Your task to perform on an android device: check out phone information Image 0: 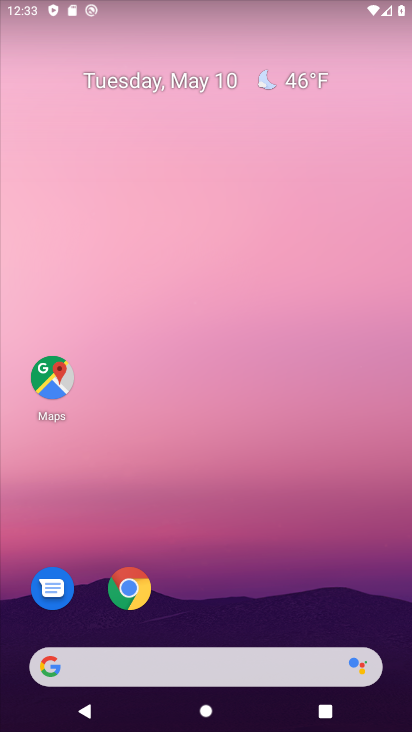
Step 0: drag from (203, 636) to (196, 53)
Your task to perform on an android device: check out phone information Image 1: 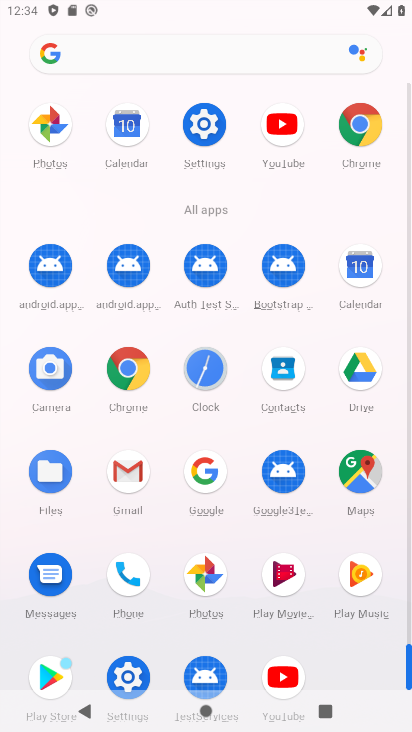
Step 1: click (134, 676)
Your task to perform on an android device: check out phone information Image 2: 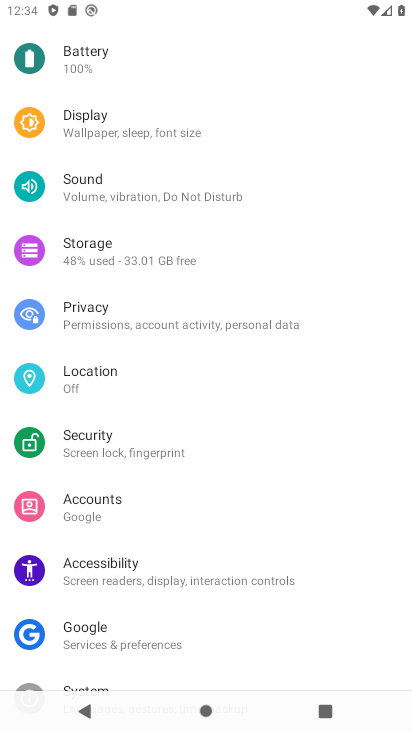
Step 2: drag from (80, 589) to (96, 2)
Your task to perform on an android device: check out phone information Image 3: 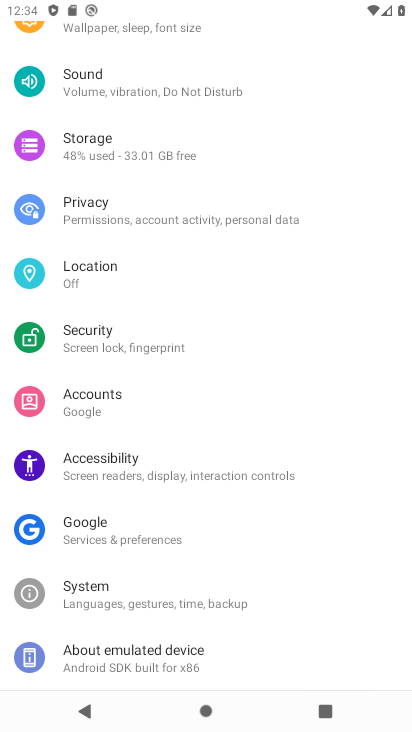
Step 3: click (171, 658)
Your task to perform on an android device: check out phone information Image 4: 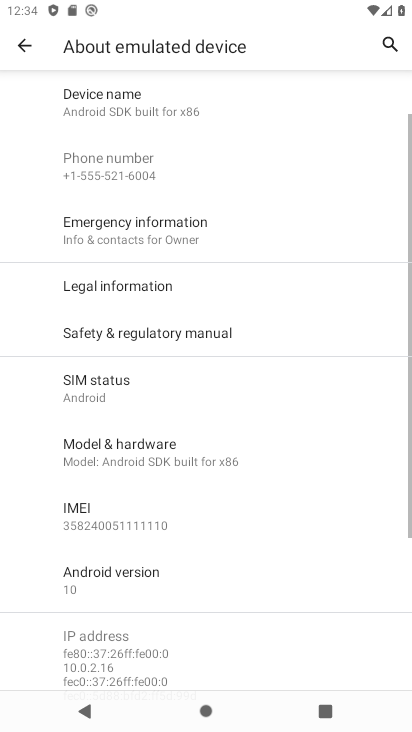
Step 4: task complete